Your task to perform on an android device: turn notification dots on Image 0: 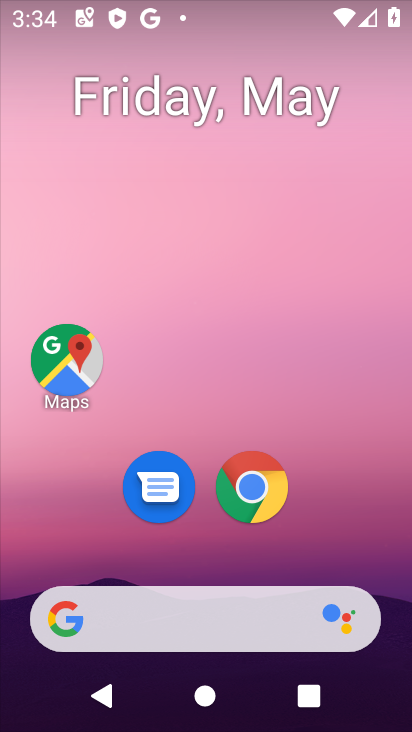
Step 0: drag from (396, 578) to (328, 81)
Your task to perform on an android device: turn notification dots on Image 1: 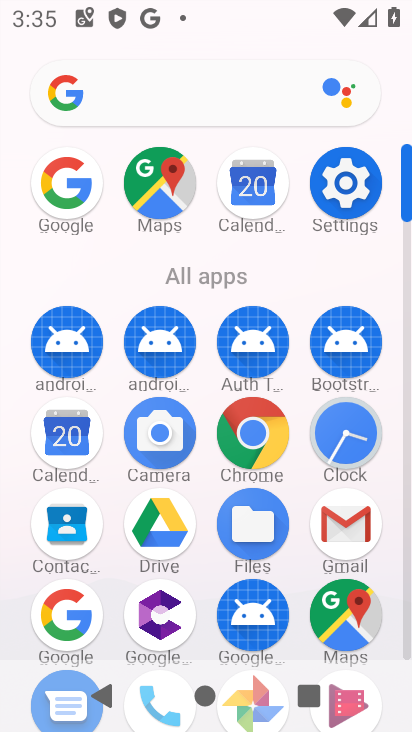
Step 1: click (336, 192)
Your task to perform on an android device: turn notification dots on Image 2: 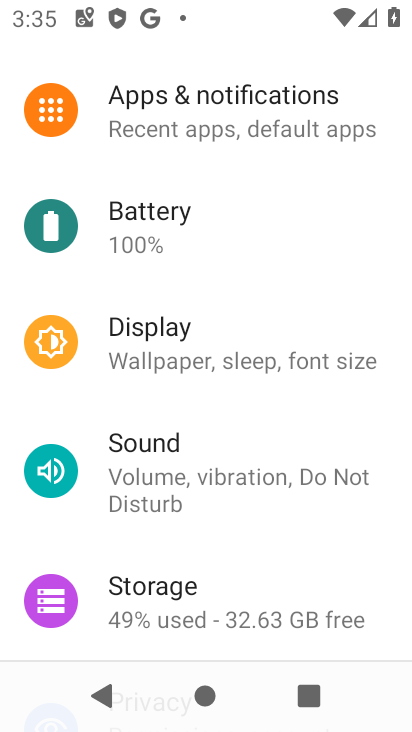
Step 2: click (277, 109)
Your task to perform on an android device: turn notification dots on Image 3: 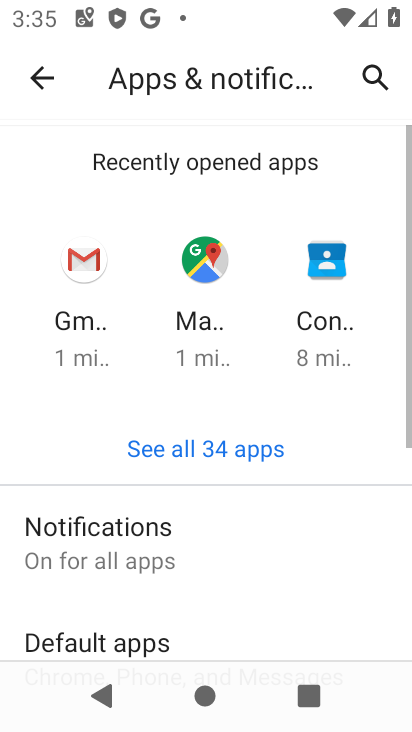
Step 3: drag from (210, 585) to (249, 257)
Your task to perform on an android device: turn notification dots on Image 4: 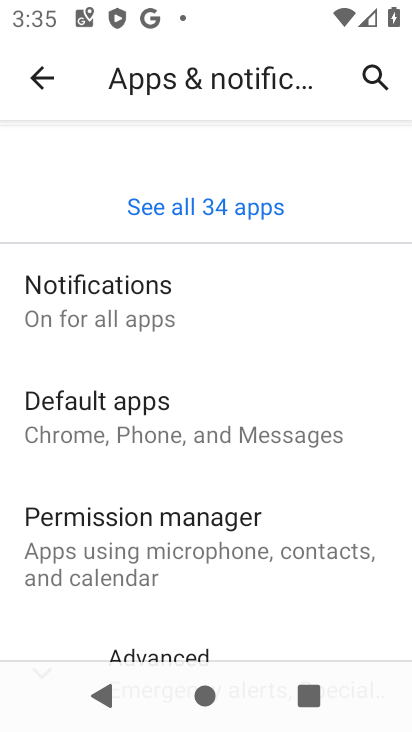
Step 4: click (171, 297)
Your task to perform on an android device: turn notification dots on Image 5: 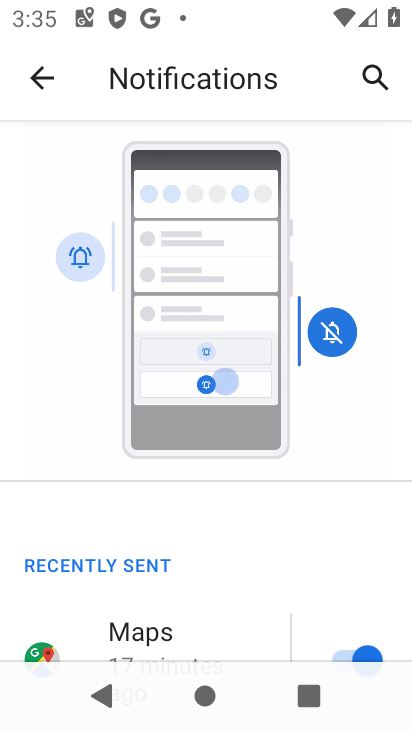
Step 5: drag from (217, 619) to (239, 69)
Your task to perform on an android device: turn notification dots on Image 6: 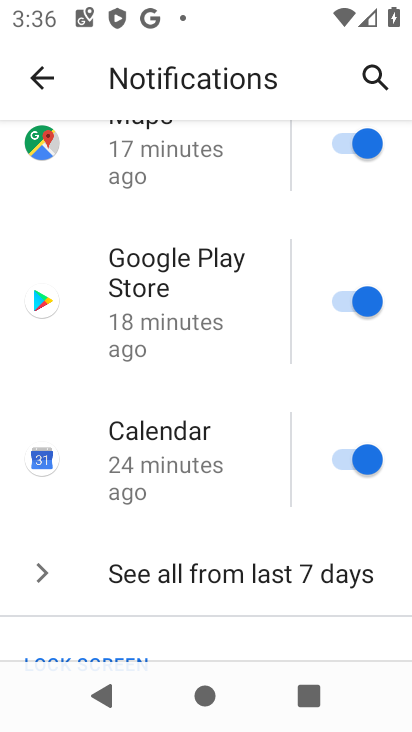
Step 6: drag from (188, 599) to (272, 98)
Your task to perform on an android device: turn notification dots on Image 7: 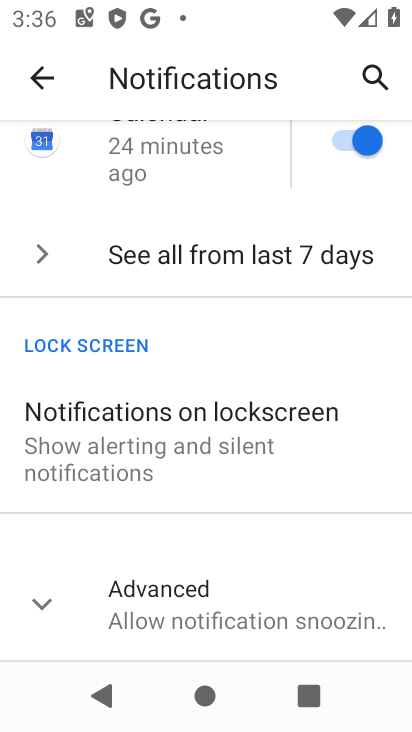
Step 7: click (126, 595)
Your task to perform on an android device: turn notification dots on Image 8: 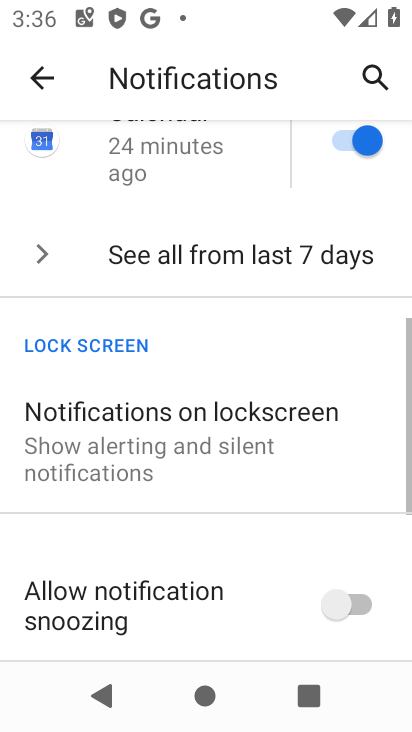
Step 8: drag from (163, 607) to (210, 67)
Your task to perform on an android device: turn notification dots on Image 9: 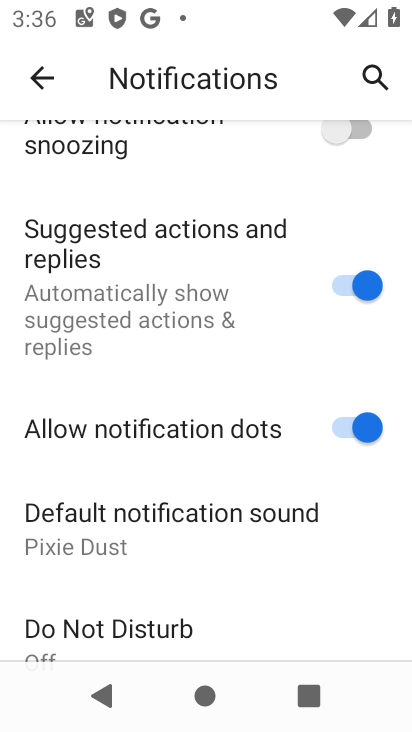
Step 9: click (288, 430)
Your task to perform on an android device: turn notification dots on Image 10: 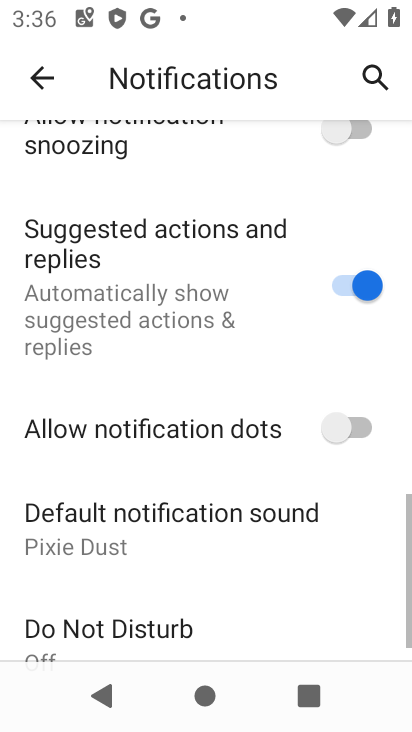
Step 10: click (288, 430)
Your task to perform on an android device: turn notification dots on Image 11: 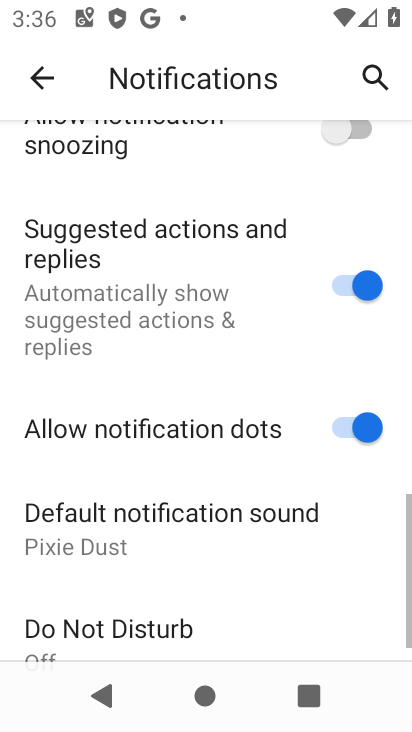
Step 11: task complete